Your task to perform on an android device: Search for logitech g933 on bestbuy, select the first entry, and add it to the cart. Image 0: 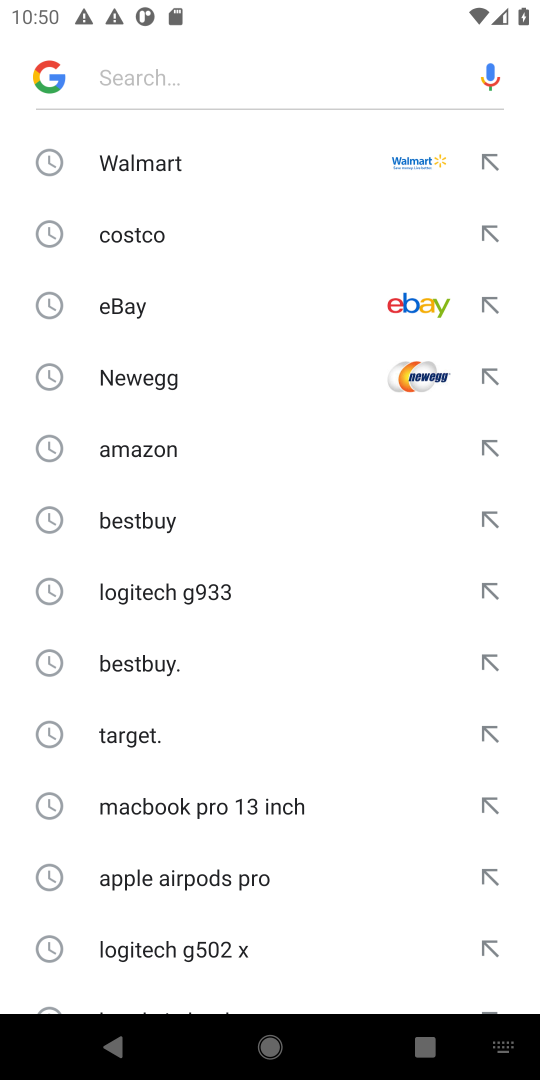
Step 0: click (128, 522)
Your task to perform on an android device: Search for logitech g933 on bestbuy, select the first entry, and add it to the cart. Image 1: 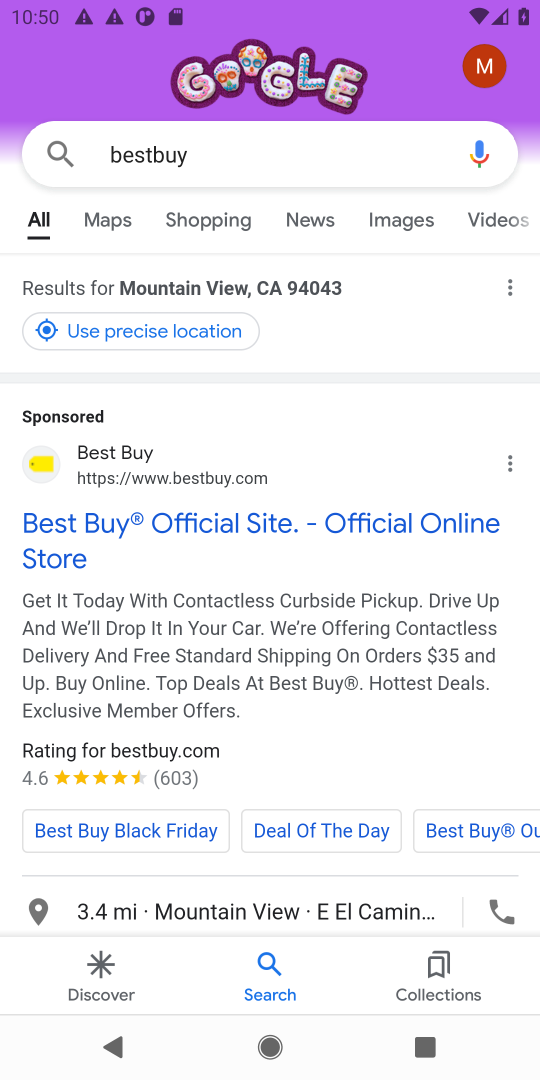
Step 1: drag from (154, 880) to (133, 541)
Your task to perform on an android device: Search for logitech g933 on bestbuy, select the first entry, and add it to the cart. Image 2: 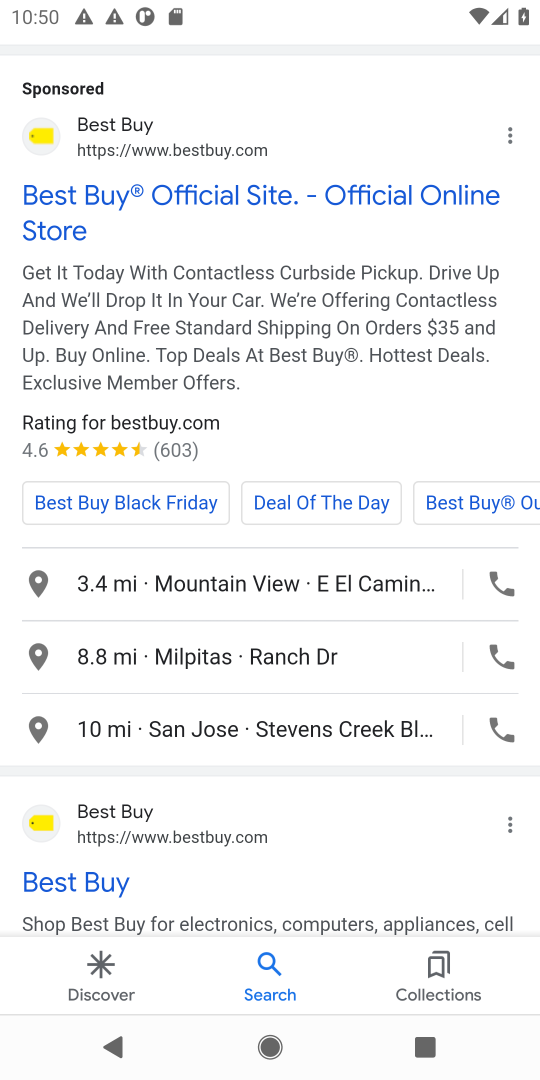
Step 2: click (84, 881)
Your task to perform on an android device: Search for logitech g933 on bestbuy, select the first entry, and add it to the cart. Image 3: 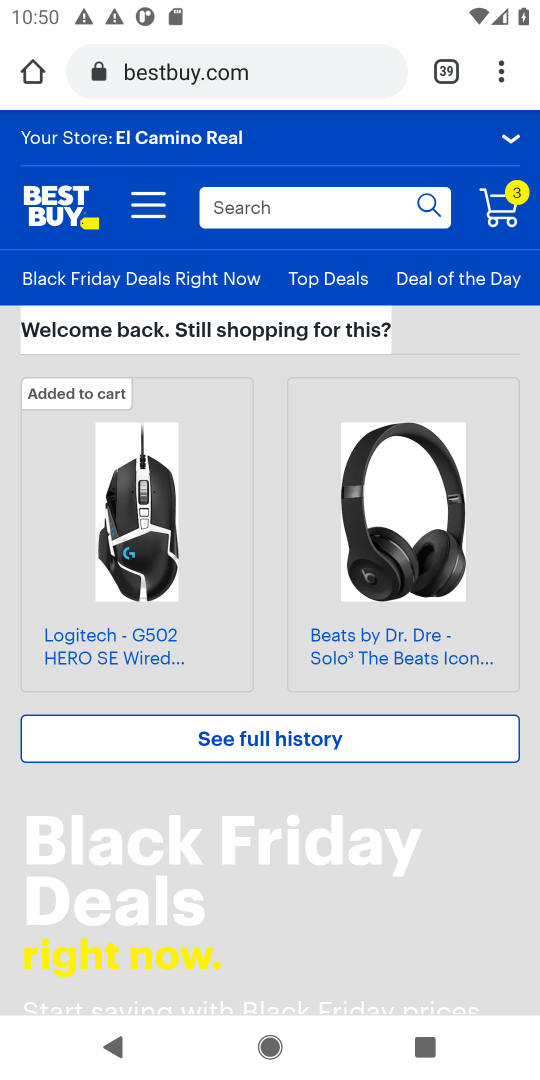
Step 3: click (324, 200)
Your task to perform on an android device: Search for logitech g933 on bestbuy, select the first entry, and add it to the cart. Image 4: 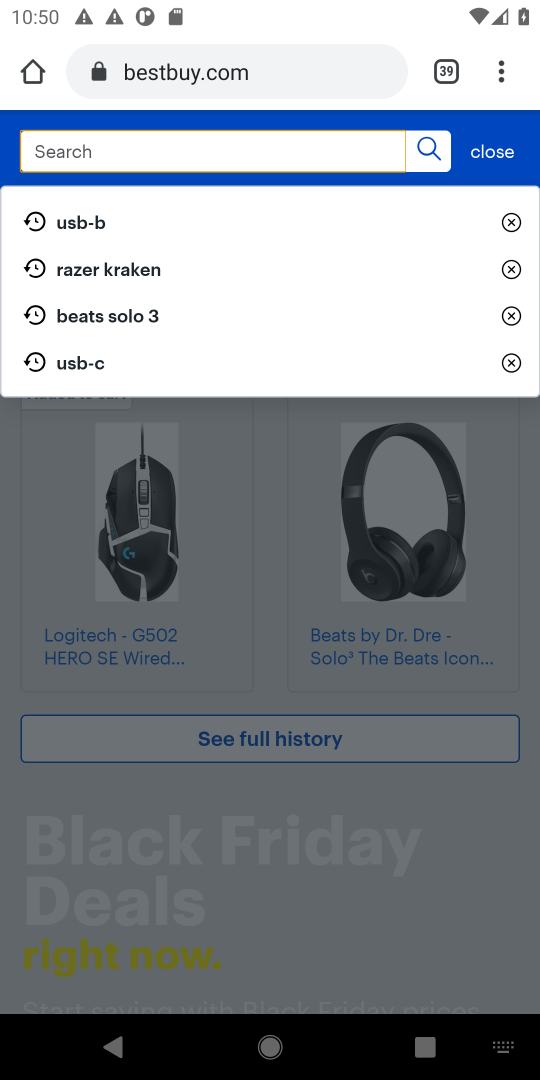
Step 4: type "logitech g933"
Your task to perform on an android device: Search for logitech g933 on bestbuy, select the first entry, and add it to the cart. Image 5: 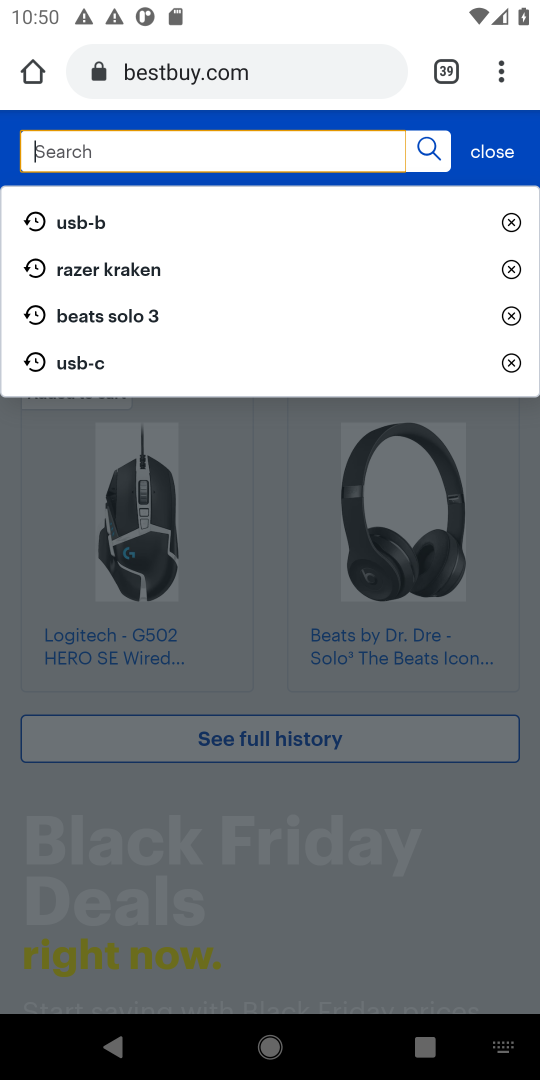
Step 5: click (98, 143)
Your task to perform on an android device: Search for logitech g933 on bestbuy, select the first entry, and add it to the cart. Image 6: 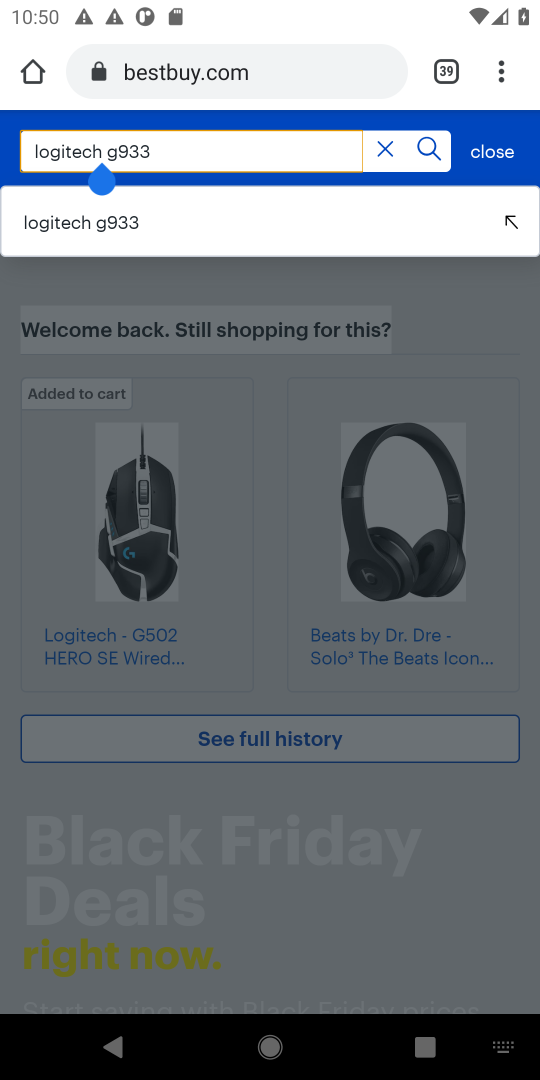
Step 6: press enter
Your task to perform on an android device: Search for logitech g933 on bestbuy, select the first entry, and add it to the cart. Image 7: 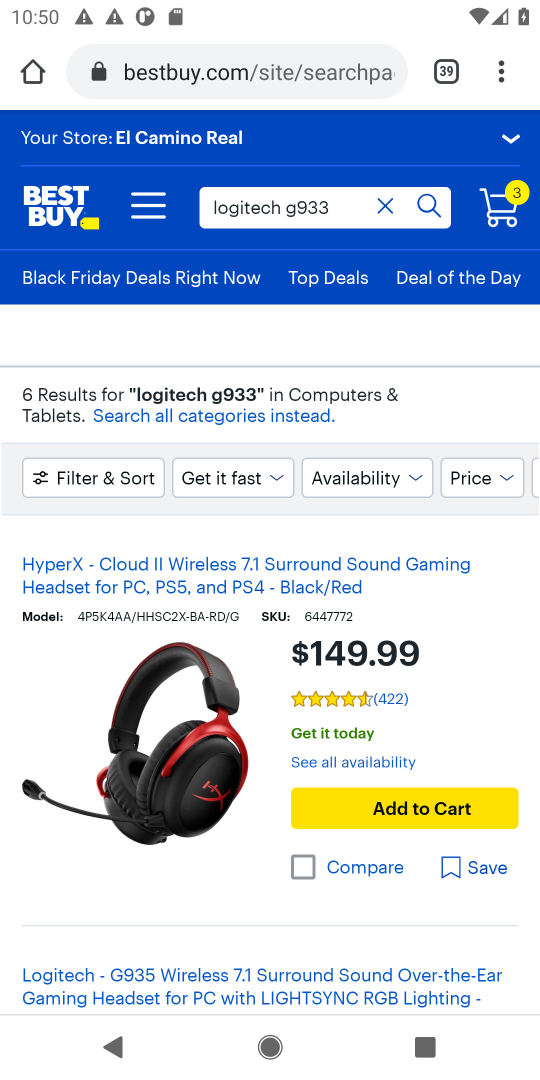
Step 7: task complete